Your task to perform on an android device: Open Amazon Image 0: 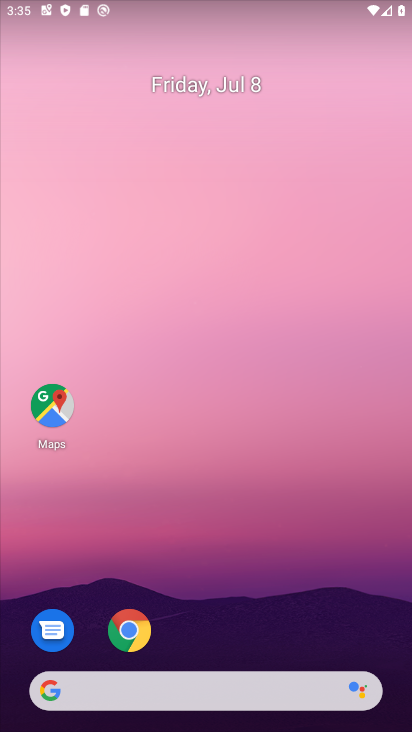
Step 0: drag from (230, 638) to (216, 147)
Your task to perform on an android device: Open Amazon Image 1: 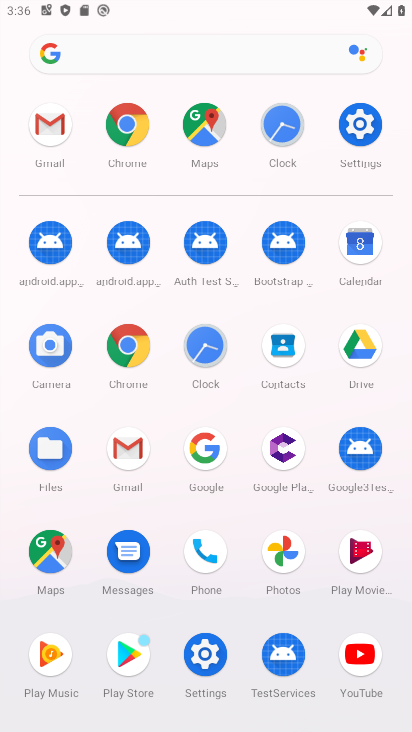
Step 1: click (142, 154)
Your task to perform on an android device: Open Amazon Image 2: 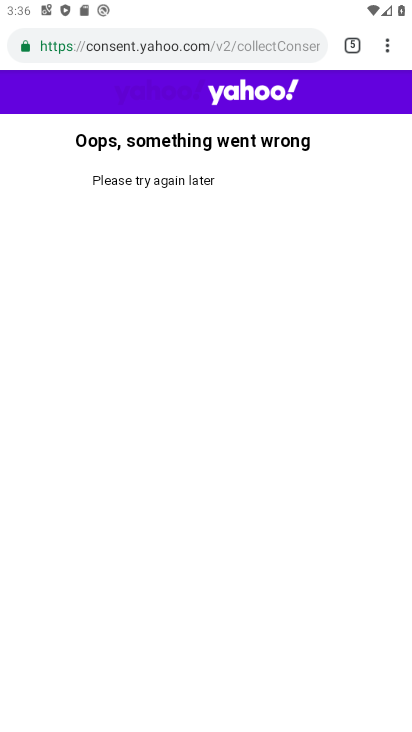
Step 2: click (239, 51)
Your task to perform on an android device: Open Amazon Image 3: 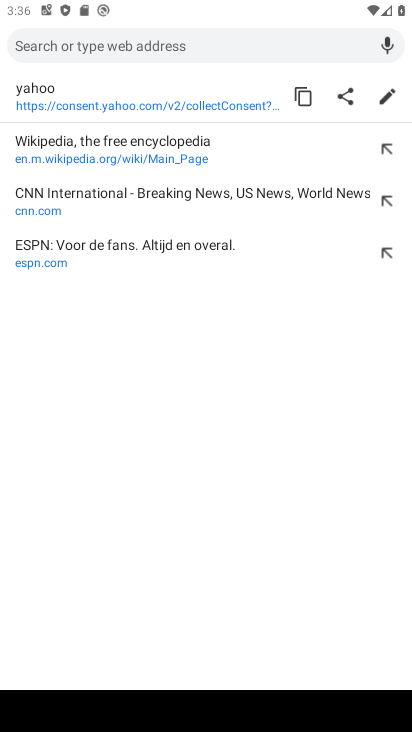
Step 3: type "amazon"
Your task to perform on an android device: Open Amazon Image 4: 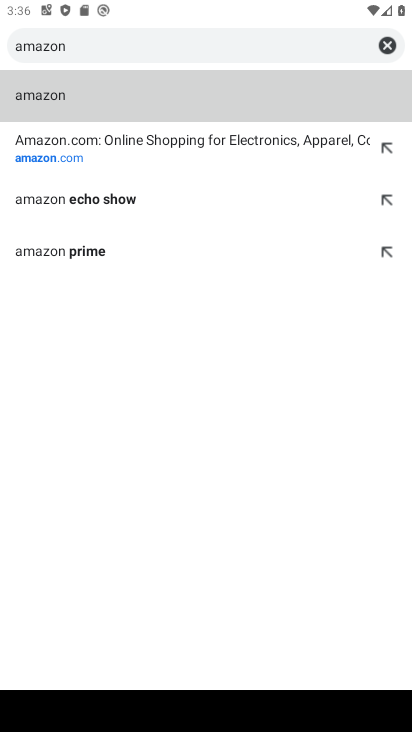
Step 4: click (164, 146)
Your task to perform on an android device: Open Amazon Image 5: 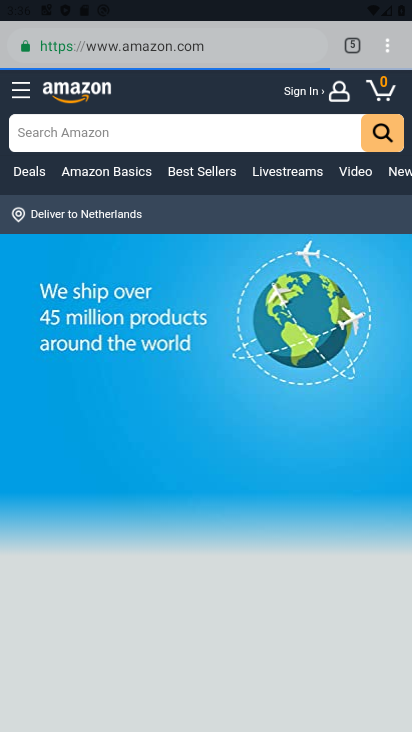
Step 5: task complete